Your task to perform on an android device: turn off location Image 0: 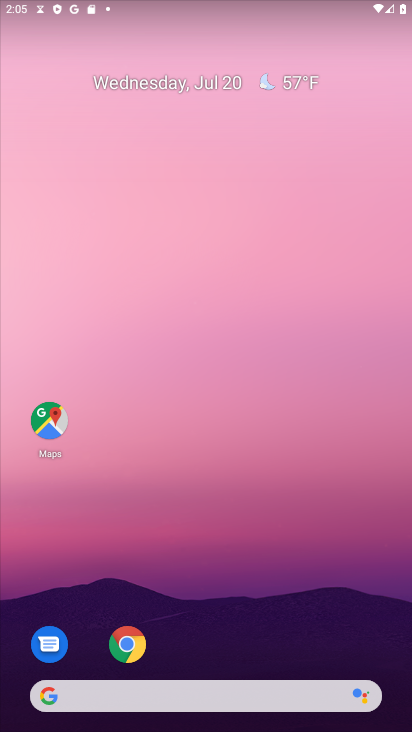
Step 0: press home button
Your task to perform on an android device: turn off location Image 1: 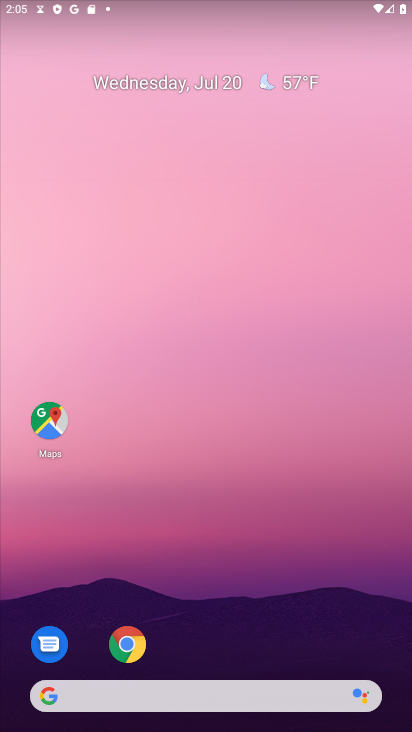
Step 1: drag from (249, 643) to (326, 175)
Your task to perform on an android device: turn off location Image 2: 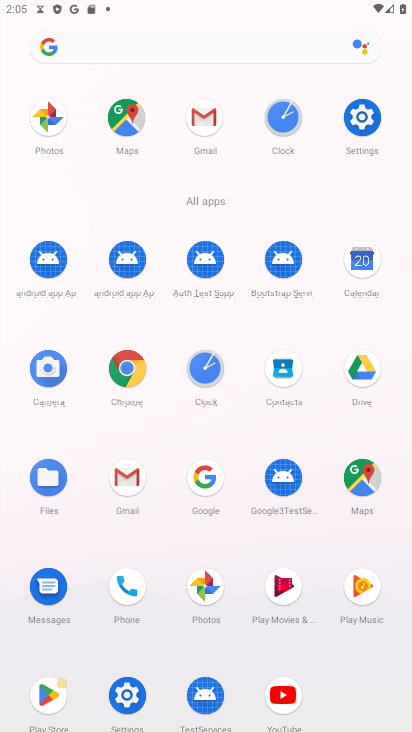
Step 2: click (348, 120)
Your task to perform on an android device: turn off location Image 3: 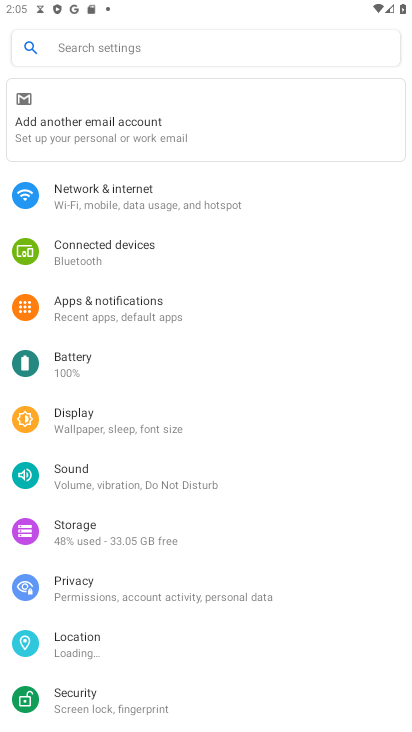
Step 3: click (75, 641)
Your task to perform on an android device: turn off location Image 4: 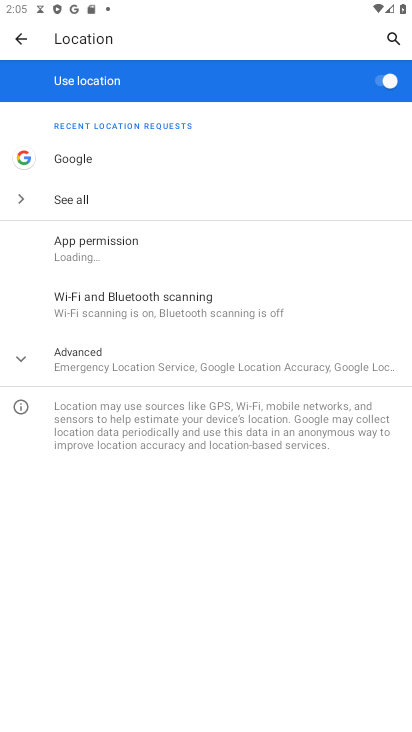
Step 4: click (393, 87)
Your task to perform on an android device: turn off location Image 5: 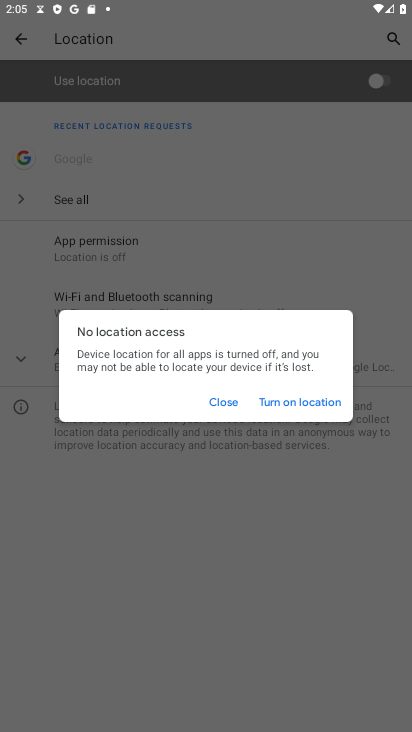
Step 5: task complete